Your task to perform on an android device: Go to network settings Image 0: 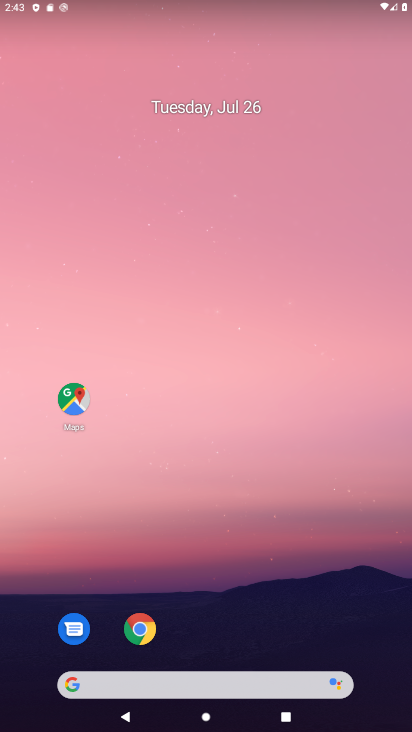
Step 0: drag from (380, 649) to (287, 9)
Your task to perform on an android device: Go to network settings Image 1: 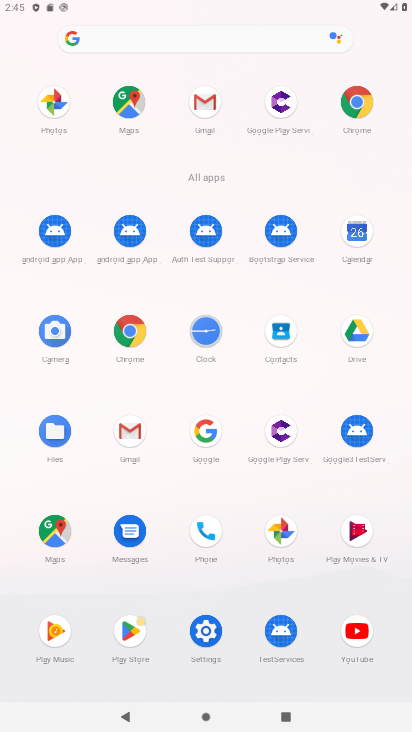
Step 1: click (191, 644)
Your task to perform on an android device: Go to network settings Image 2: 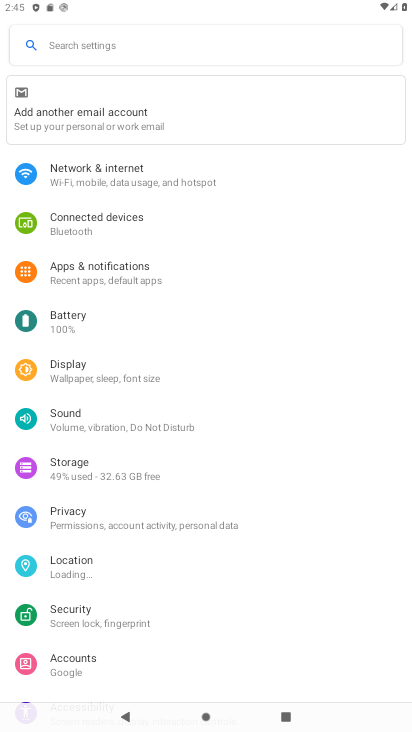
Step 2: click (73, 182)
Your task to perform on an android device: Go to network settings Image 3: 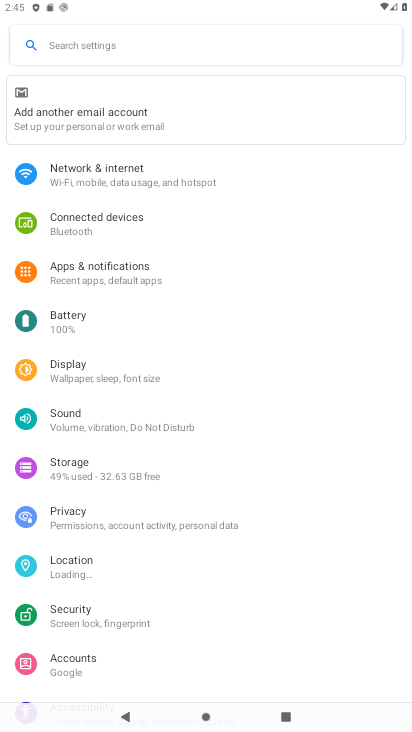
Step 3: task complete